Your task to perform on an android device: When is my next appointment? Image 0: 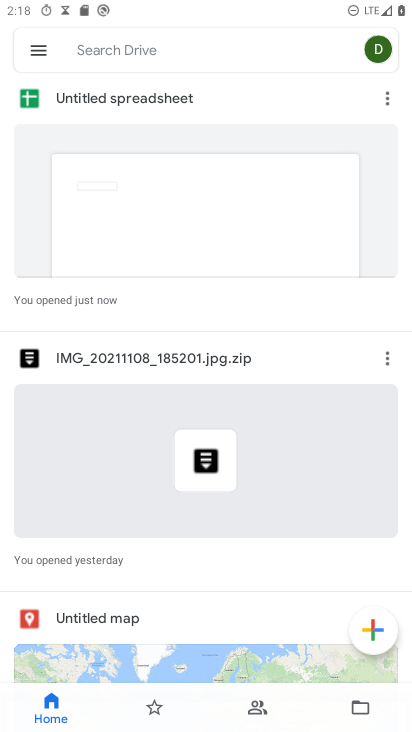
Step 0: press home button
Your task to perform on an android device: When is my next appointment? Image 1: 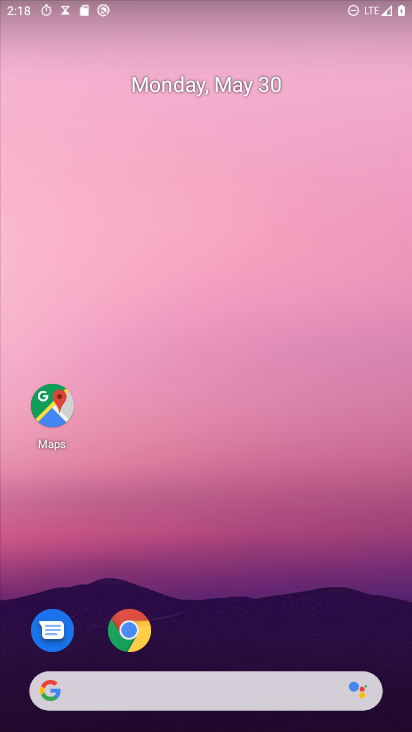
Step 1: drag from (301, 694) to (123, 18)
Your task to perform on an android device: When is my next appointment? Image 2: 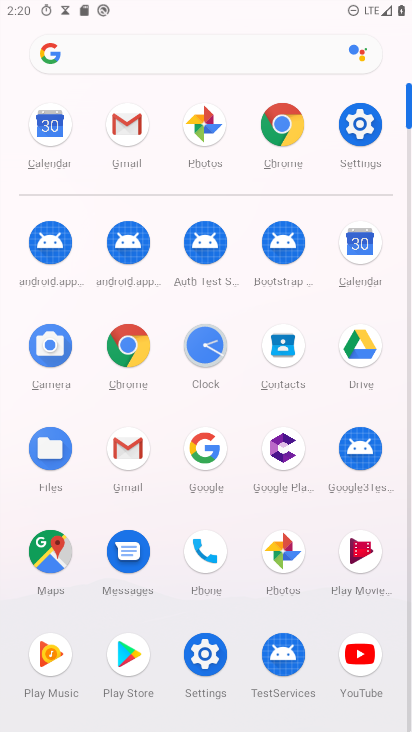
Step 2: click (364, 238)
Your task to perform on an android device: When is my next appointment? Image 3: 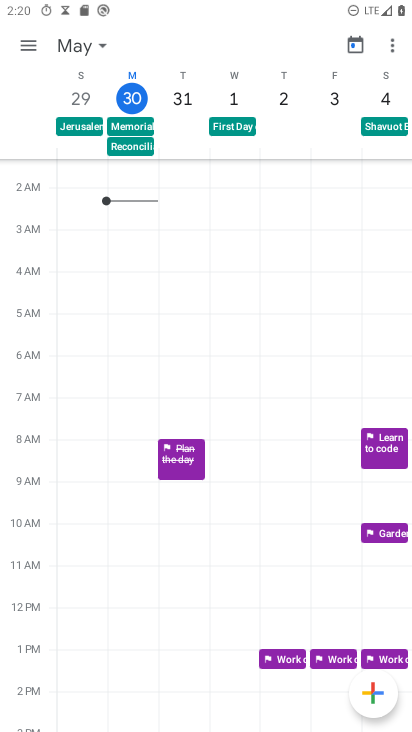
Step 3: click (119, 89)
Your task to perform on an android device: When is my next appointment? Image 4: 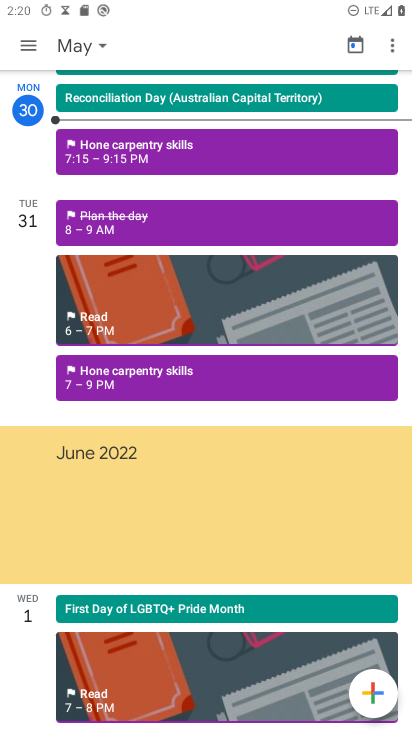
Step 4: task complete